Your task to perform on an android device: change text size in settings app Image 0: 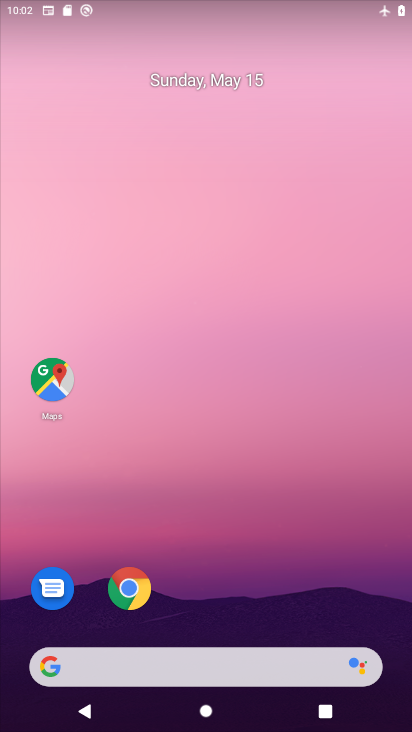
Step 0: drag from (273, 589) to (162, 240)
Your task to perform on an android device: change text size in settings app Image 1: 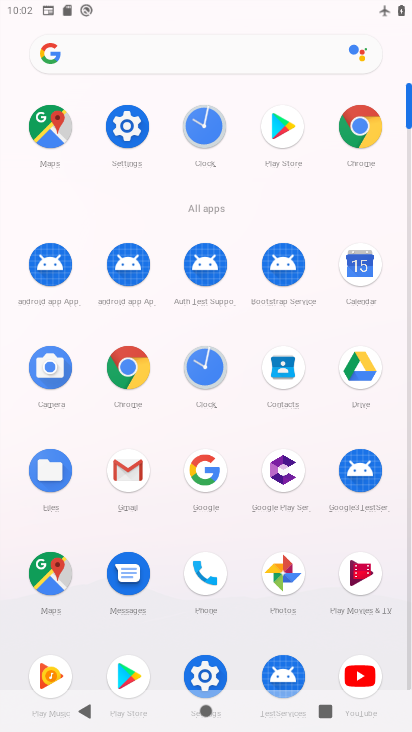
Step 1: click (122, 129)
Your task to perform on an android device: change text size in settings app Image 2: 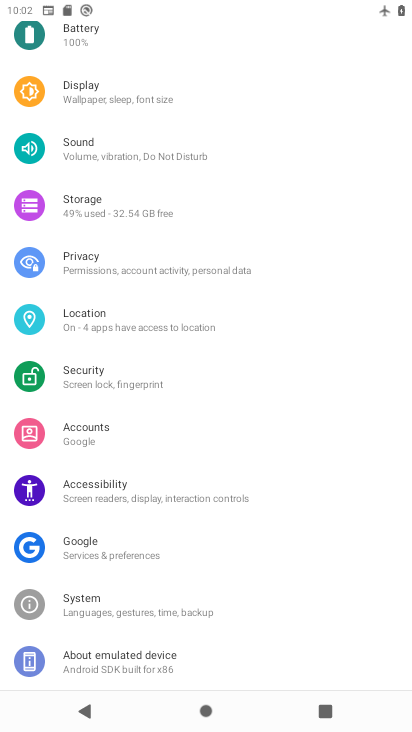
Step 2: click (121, 98)
Your task to perform on an android device: change text size in settings app Image 3: 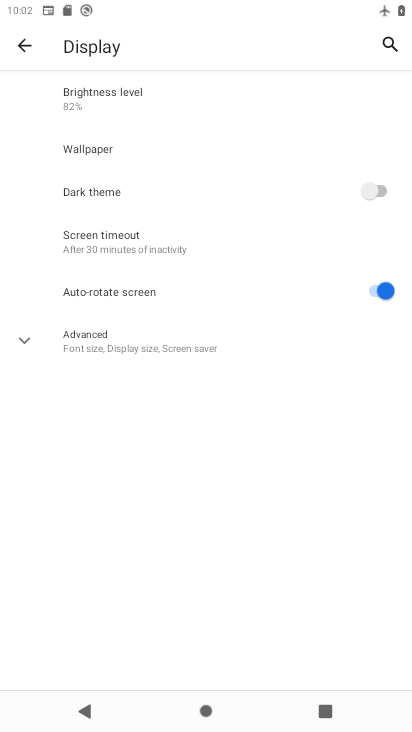
Step 3: click (103, 341)
Your task to perform on an android device: change text size in settings app Image 4: 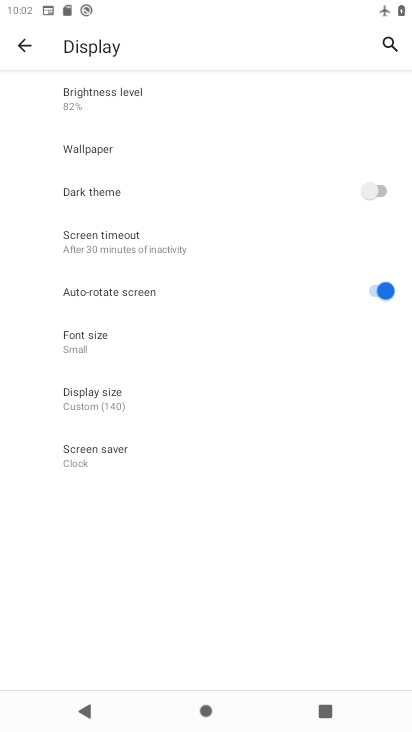
Step 4: click (103, 341)
Your task to perform on an android device: change text size in settings app Image 5: 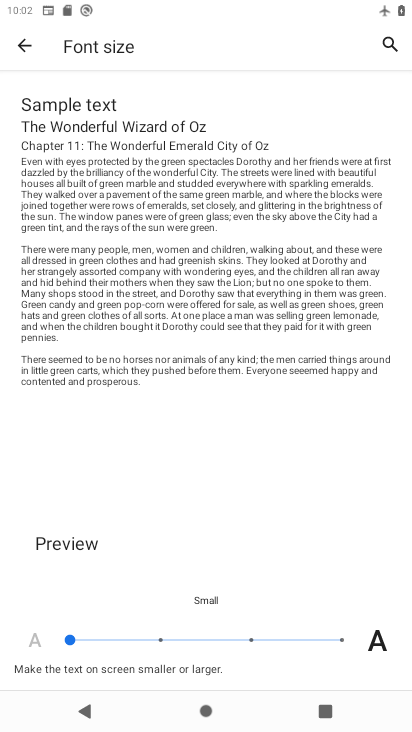
Step 5: click (164, 640)
Your task to perform on an android device: change text size in settings app Image 6: 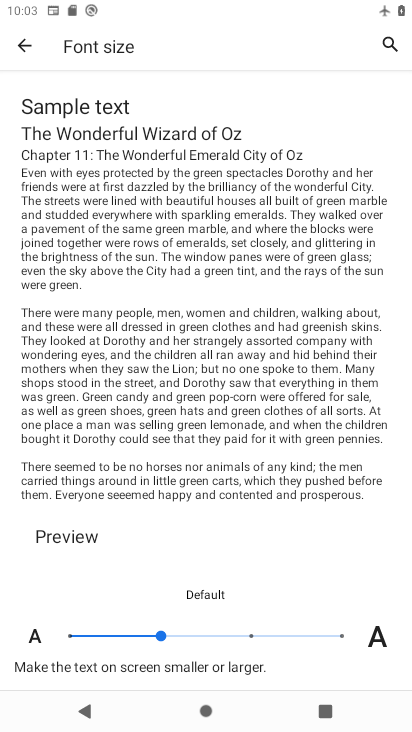
Step 6: task complete